Your task to perform on an android device: add a contact in the contacts app Image 0: 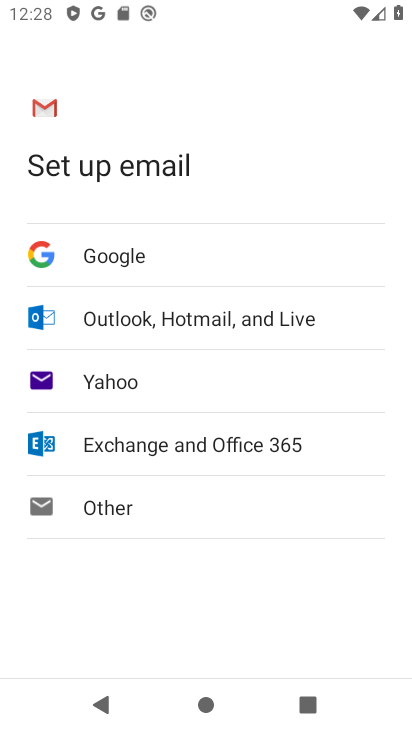
Step 0: press home button
Your task to perform on an android device: add a contact in the contacts app Image 1: 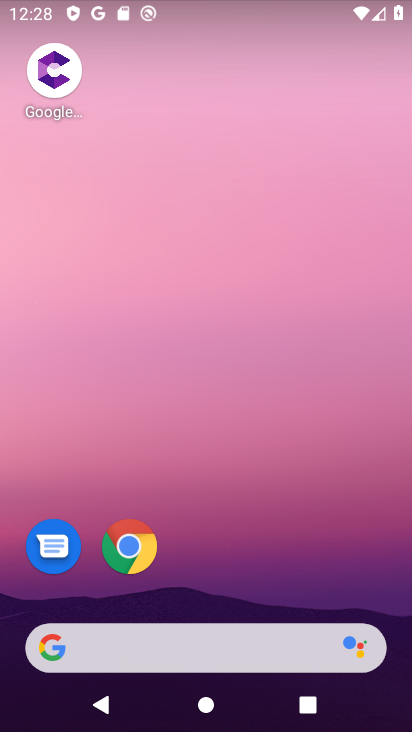
Step 1: drag from (217, 588) to (268, 35)
Your task to perform on an android device: add a contact in the contacts app Image 2: 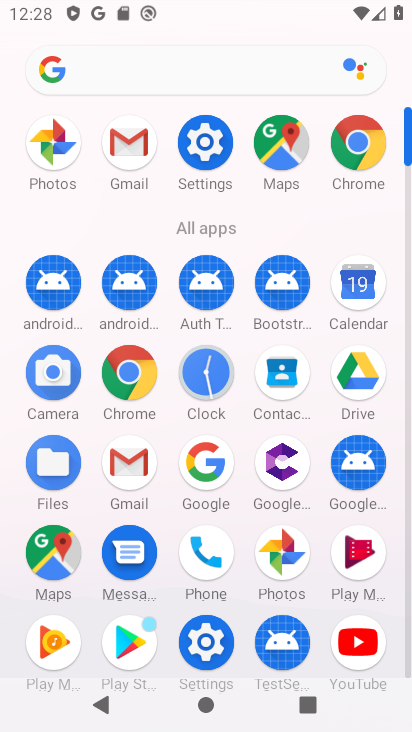
Step 2: click (285, 374)
Your task to perform on an android device: add a contact in the contacts app Image 3: 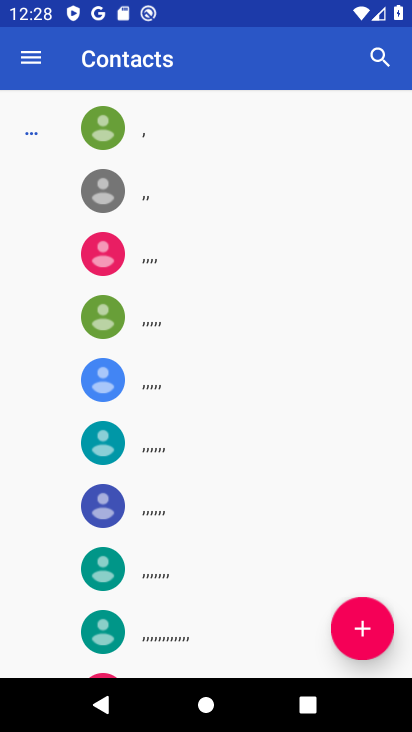
Step 3: click (369, 627)
Your task to perform on an android device: add a contact in the contacts app Image 4: 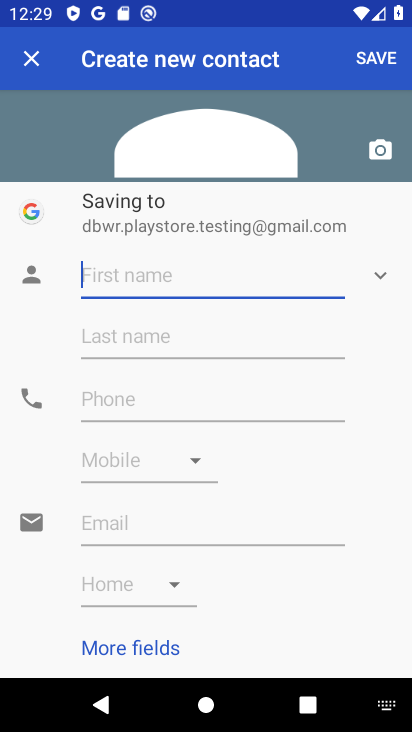
Step 4: type "asdfghjklmnbvcxz"
Your task to perform on an android device: add a contact in the contacts app Image 5: 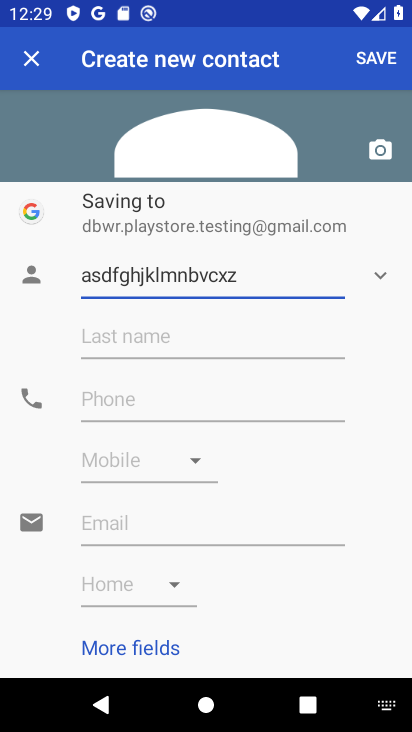
Step 5: click (139, 406)
Your task to perform on an android device: add a contact in the contacts app Image 6: 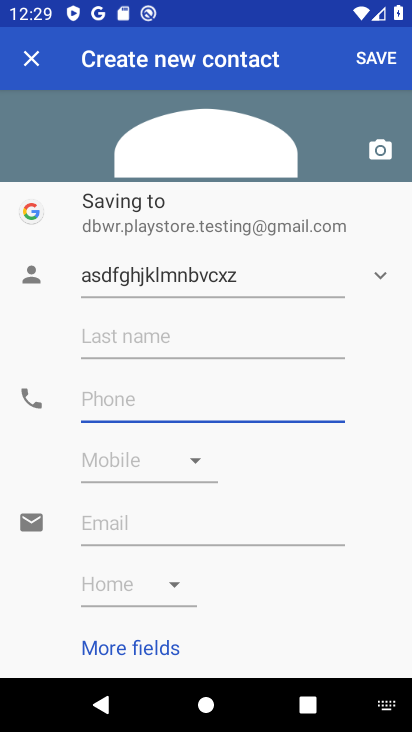
Step 6: type "6765789087"
Your task to perform on an android device: add a contact in the contacts app Image 7: 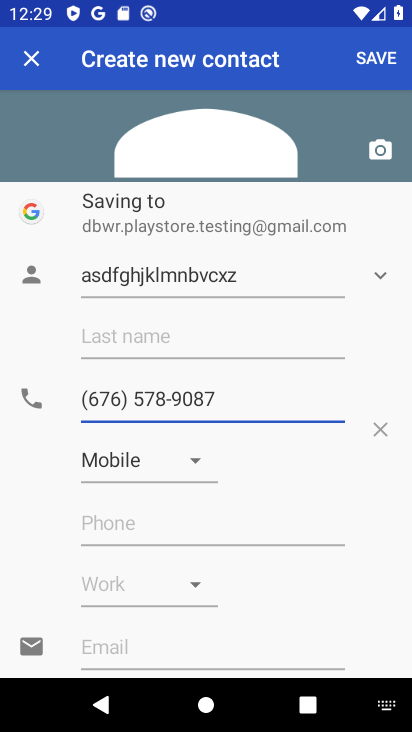
Step 7: click (382, 62)
Your task to perform on an android device: add a contact in the contacts app Image 8: 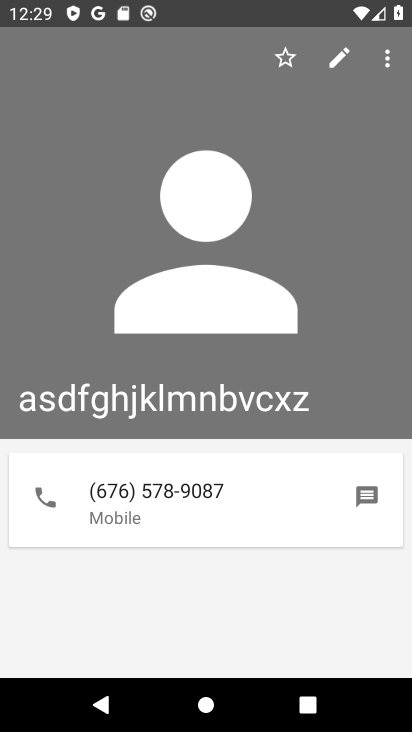
Step 8: task complete